Your task to perform on an android device: What is the recent news? Image 0: 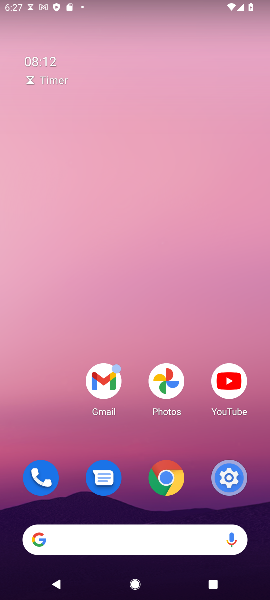
Step 0: click (141, 536)
Your task to perform on an android device: What is the recent news? Image 1: 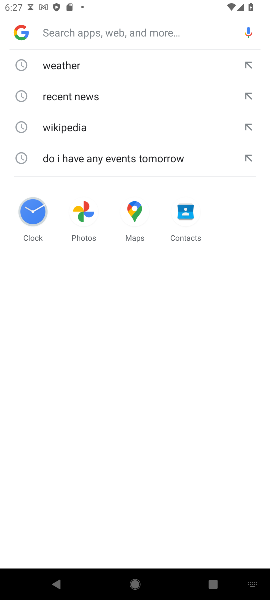
Step 1: click (65, 97)
Your task to perform on an android device: What is the recent news? Image 2: 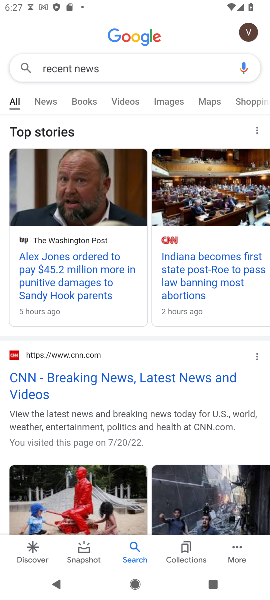
Step 2: task complete